Your task to perform on an android device: Go to Google Image 0: 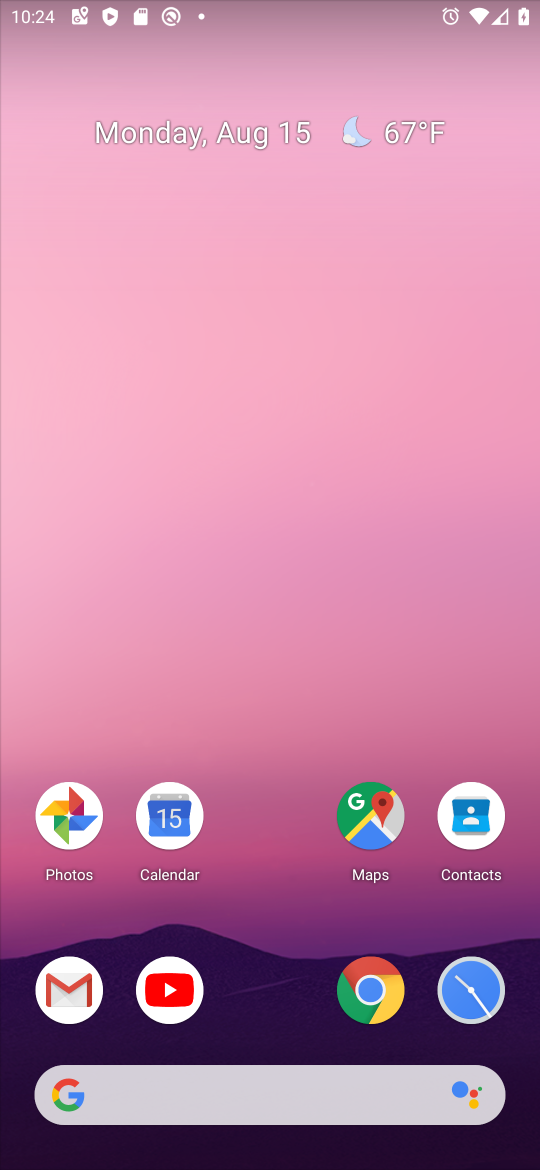
Step 0: click (69, 1092)
Your task to perform on an android device: Go to Google Image 1: 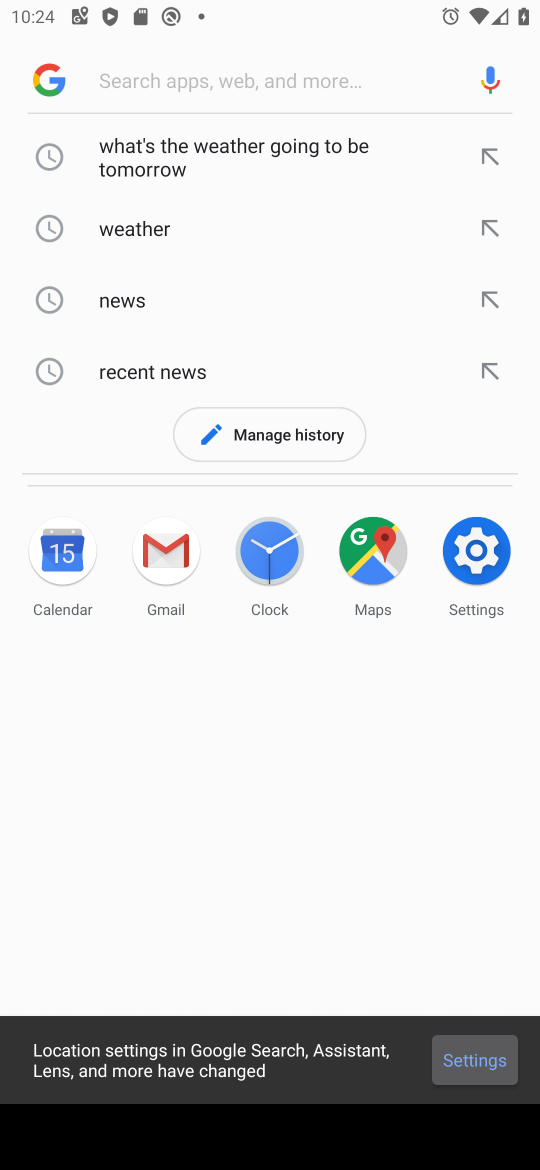
Step 1: click (44, 73)
Your task to perform on an android device: Go to Google Image 2: 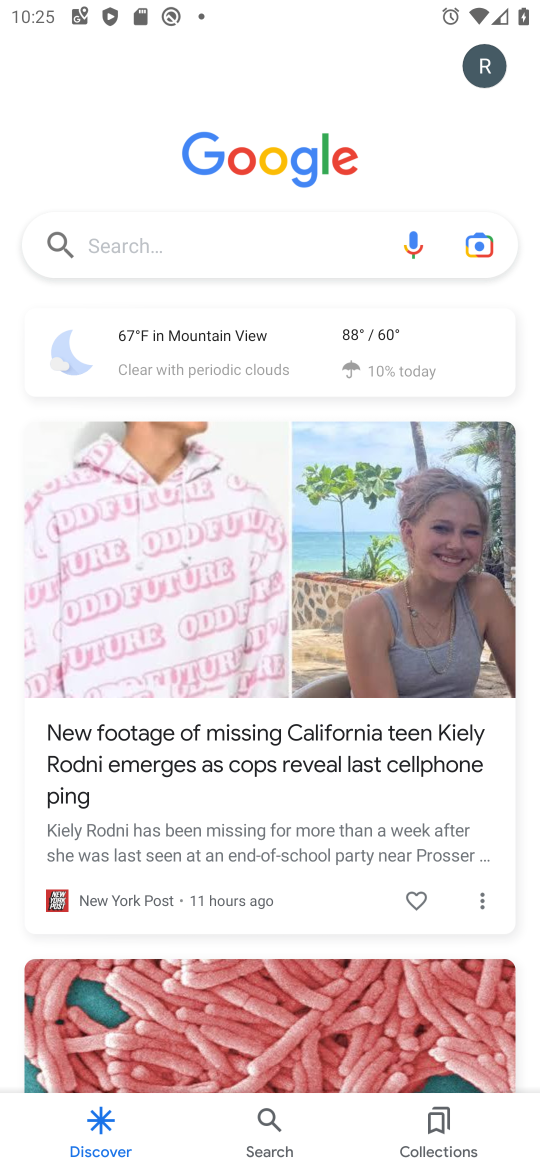
Step 2: task complete